Your task to perform on an android device: Open calendar and show me the first week of next month Image 0: 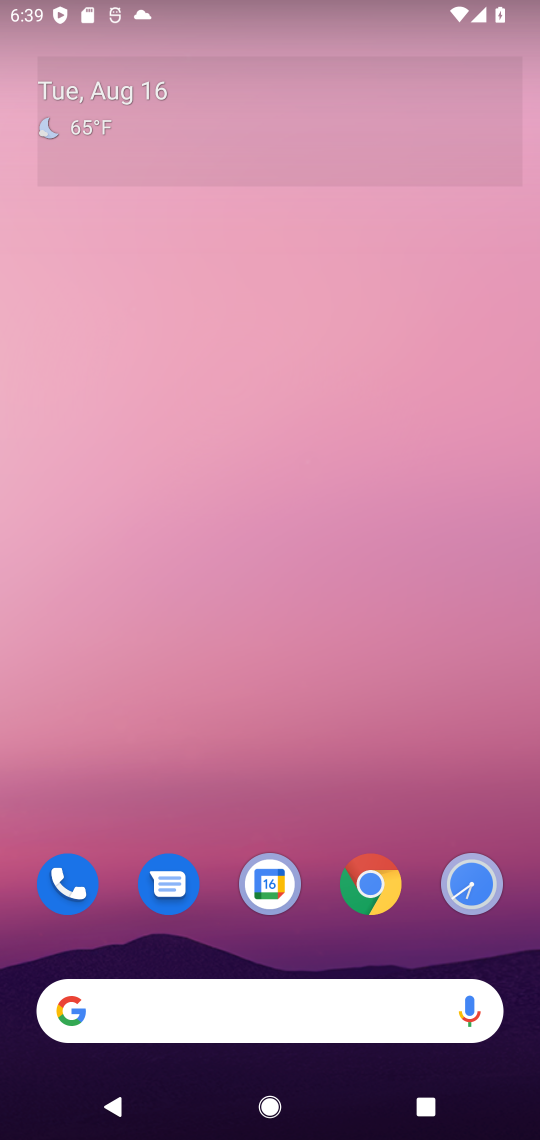
Step 0: press home button
Your task to perform on an android device: Open calendar and show me the first week of next month Image 1: 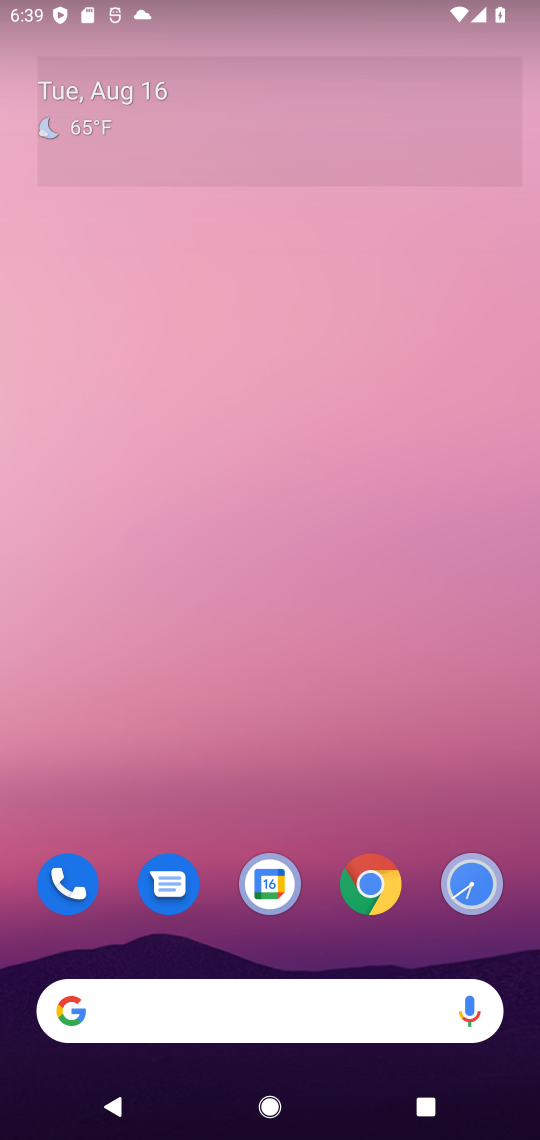
Step 1: click (285, 889)
Your task to perform on an android device: Open calendar and show me the first week of next month Image 2: 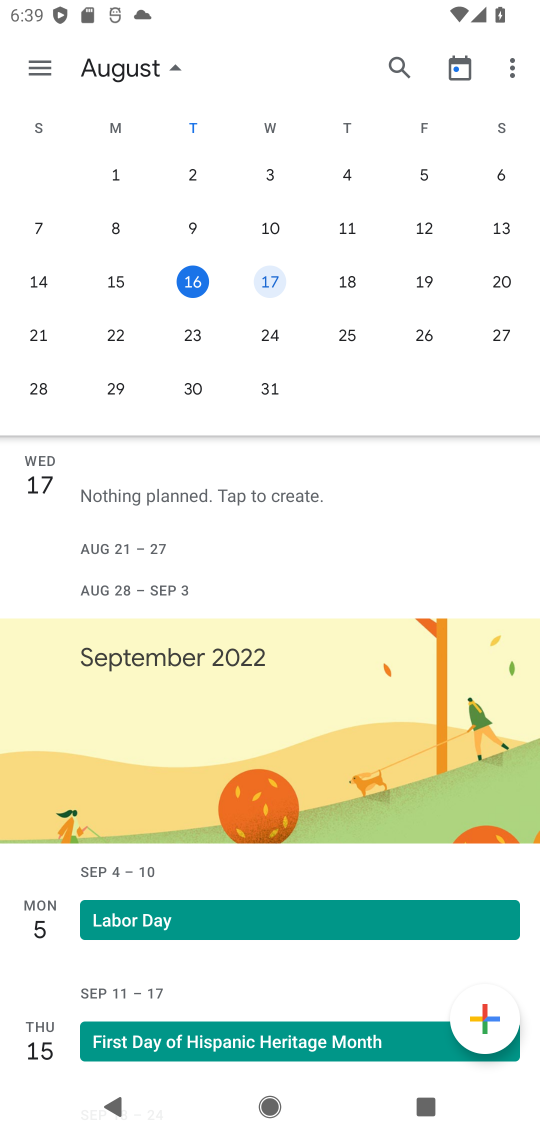
Step 2: drag from (385, 283) to (2, 232)
Your task to perform on an android device: Open calendar and show me the first week of next month Image 3: 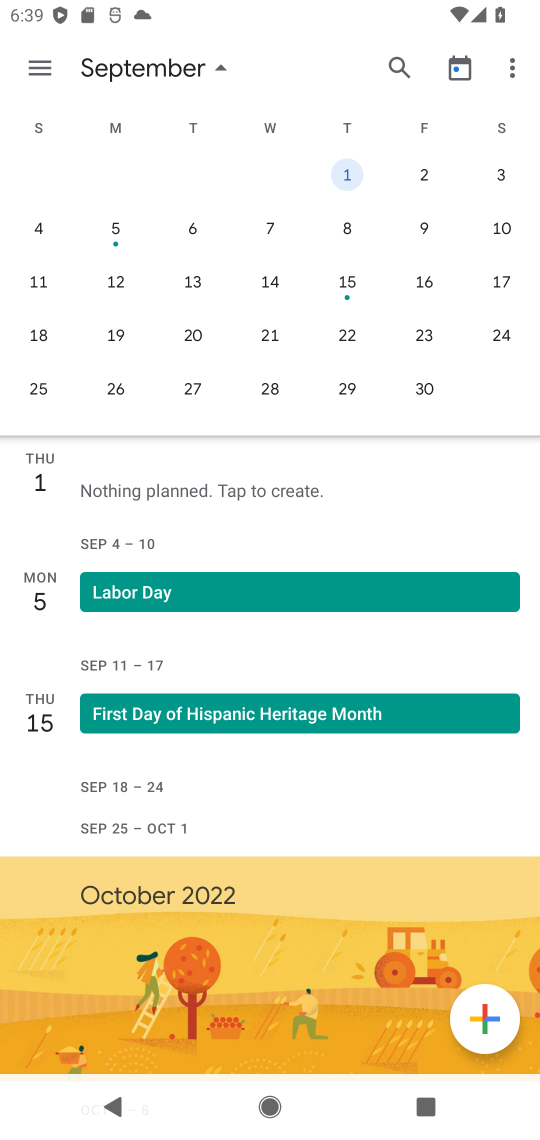
Step 3: click (419, 187)
Your task to perform on an android device: Open calendar and show me the first week of next month Image 4: 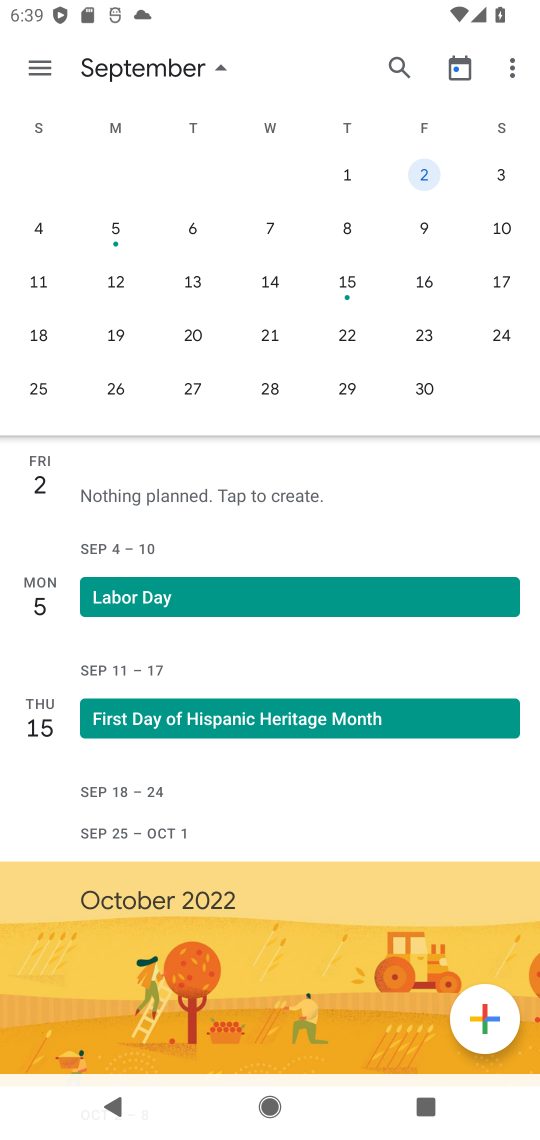
Step 4: click (505, 190)
Your task to perform on an android device: Open calendar and show me the first week of next month Image 5: 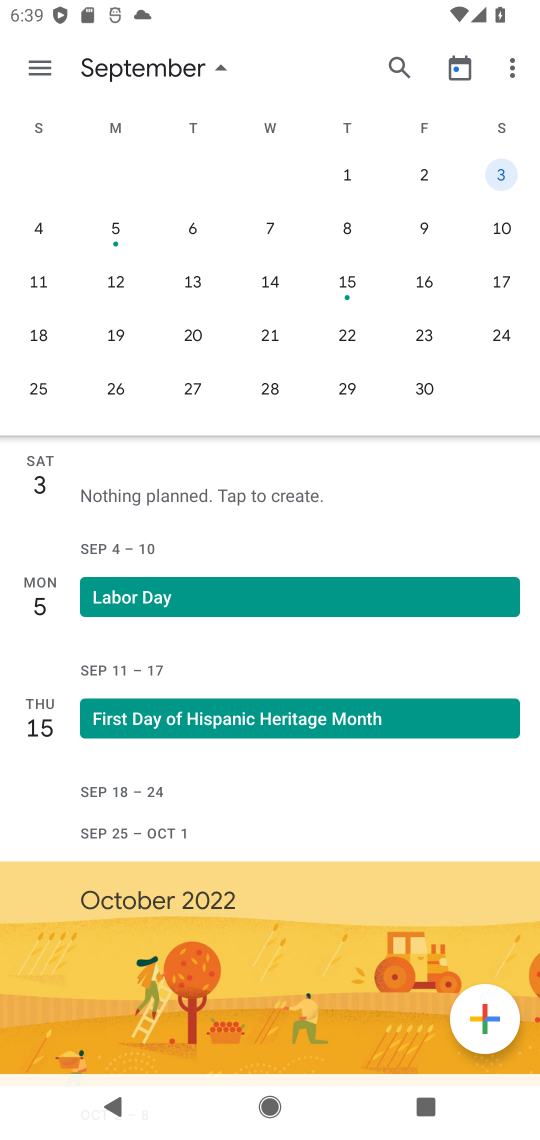
Step 5: task complete